Your task to perform on an android device: Search for razer kraken on ebay.com, select the first entry, add it to the cart, then select checkout. Image 0: 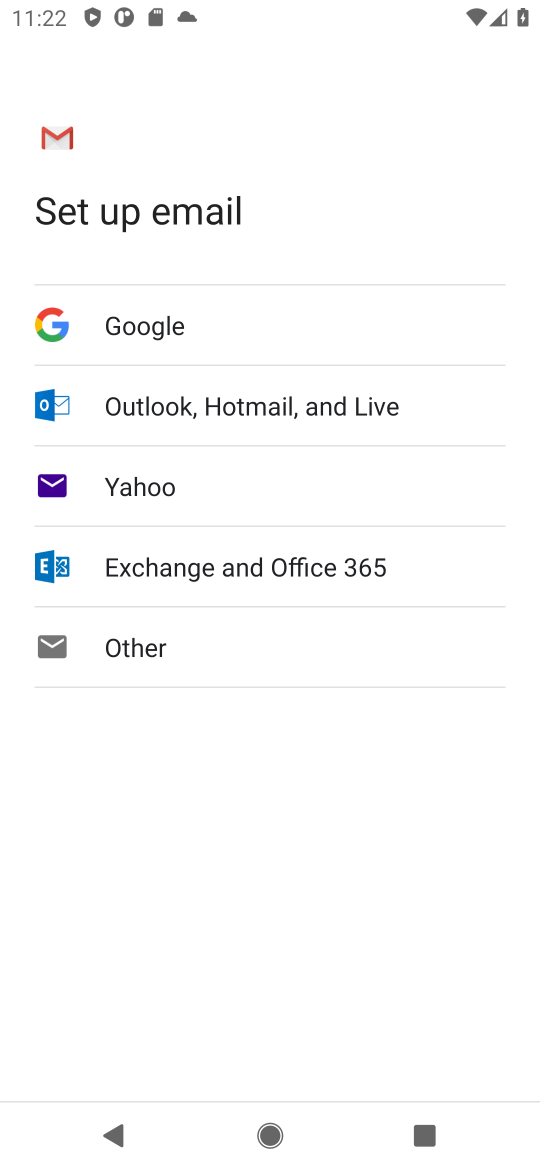
Step 0: press home button
Your task to perform on an android device: Search for razer kraken on ebay.com, select the first entry, add it to the cart, then select checkout. Image 1: 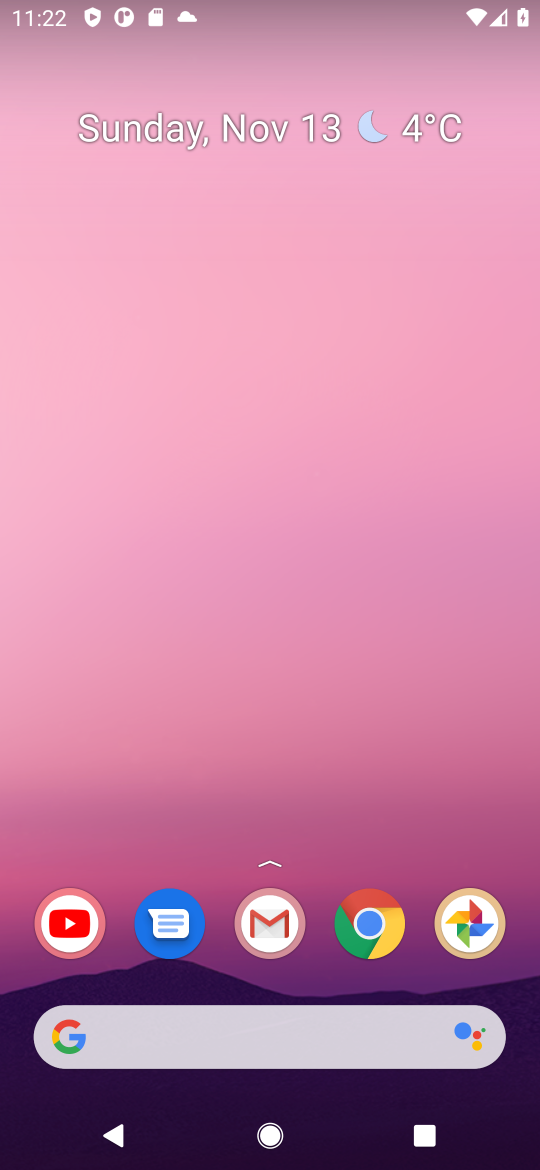
Step 1: click (365, 935)
Your task to perform on an android device: Search for razer kraken on ebay.com, select the first entry, add it to the cart, then select checkout. Image 2: 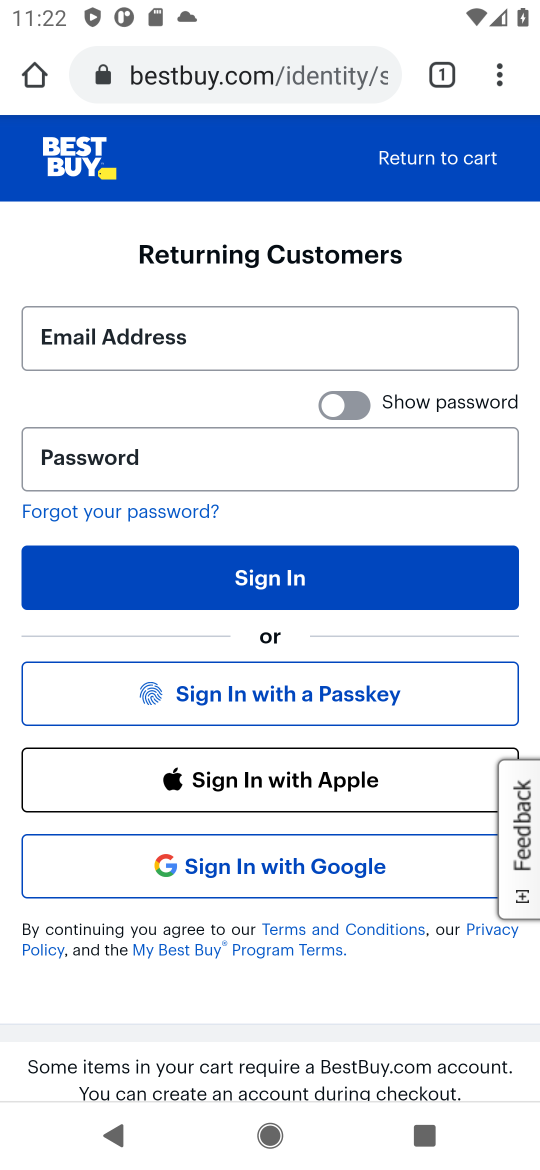
Step 2: click (317, 73)
Your task to perform on an android device: Search for razer kraken on ebay.com, select the first entry, add it to the cart, then select checkout. Image 3: 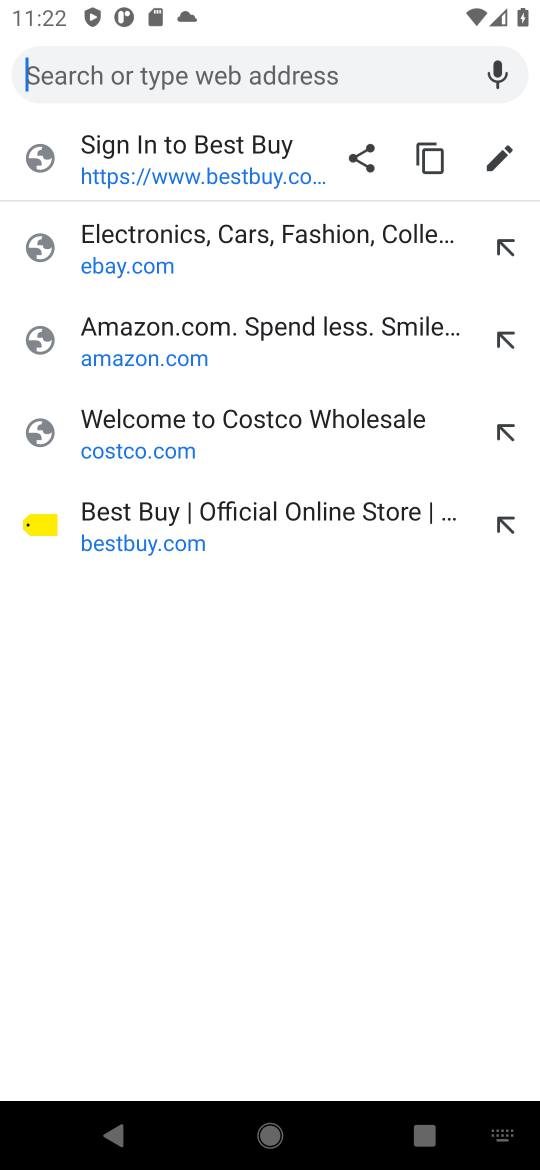
Step 3: click (305, 239)
Your task to perform on an android device: Search for razer kraken on ebay.com, select the first entry, add it to the cart, then select checkout. Image 4: 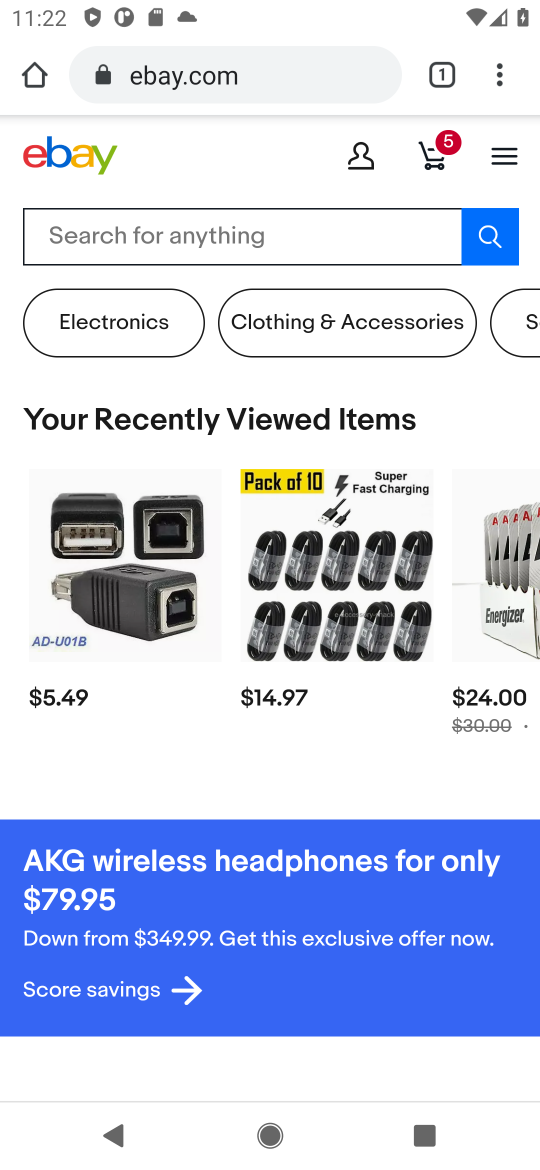
Step 4: click (346, 247)
Your task to perform on an android device: Search for razer kraken on ebay.com, select the first entry, add it to the cart, then select checkout. Image 5: 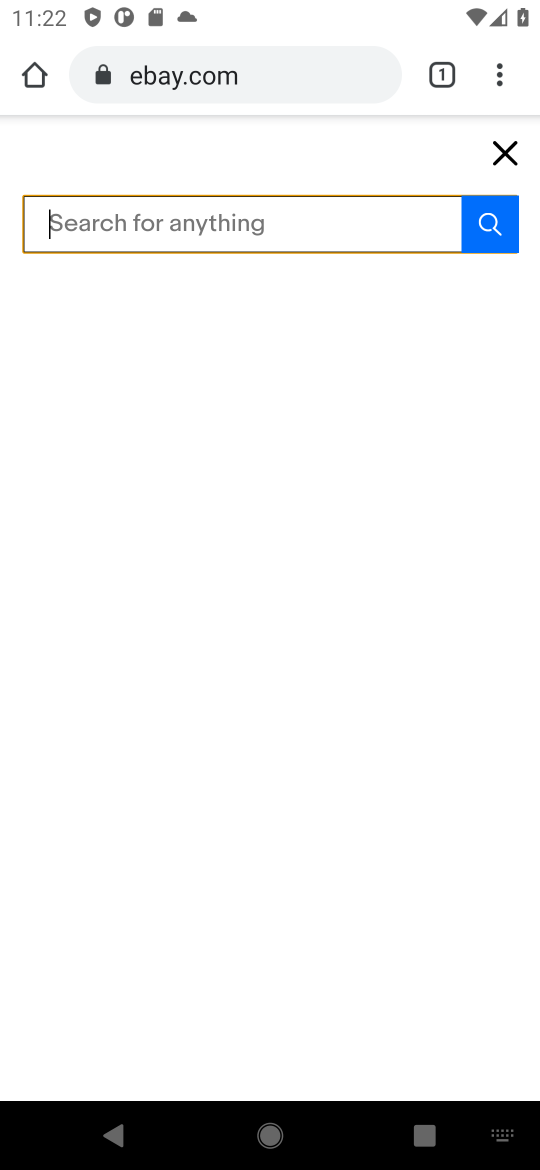
Step 5: type "razer kraken"
Your task to perform on an android device: Search for razer kraken on ebay.com, select the first entry, add it to the cart, then select checkout. Image 6: 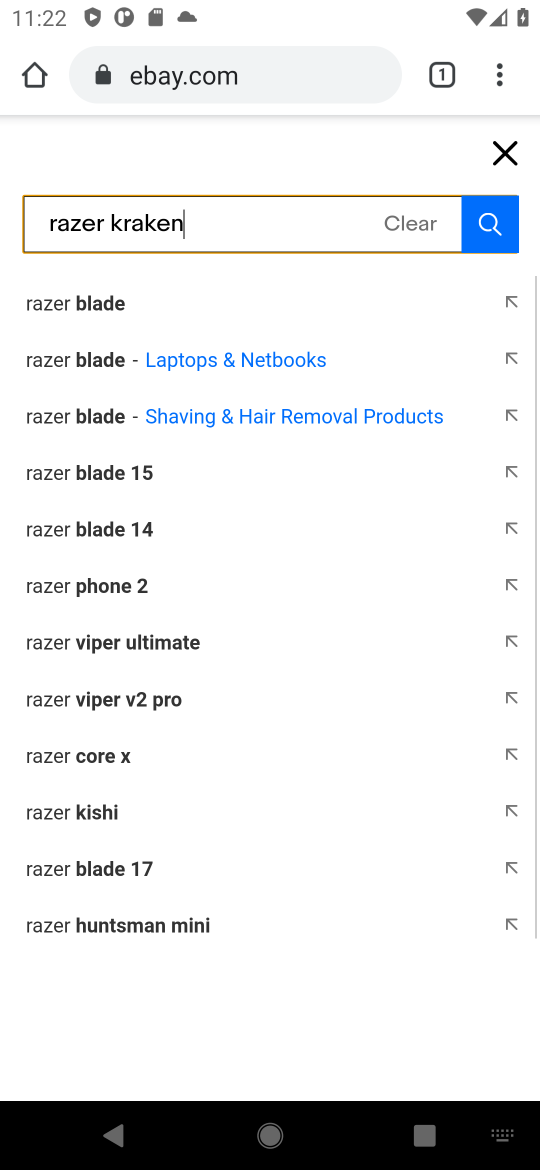
Step 6: press enter
Your task to perform on an android device: Search for razer kraken on ebay.com, select the first entry, add it to the cart, then select checkout. Image 7: 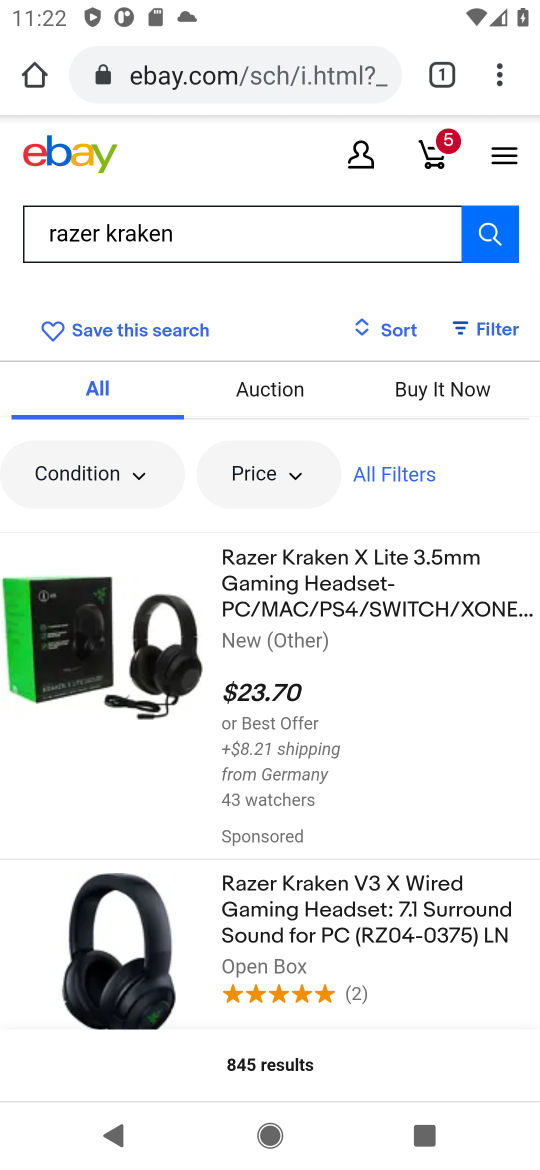
Step 7: click (328, 559)
Your task to perform on an android device: Search for razer kraken on ebay.com, select the first entry, add it to the cart, then select checkout. Image 8: 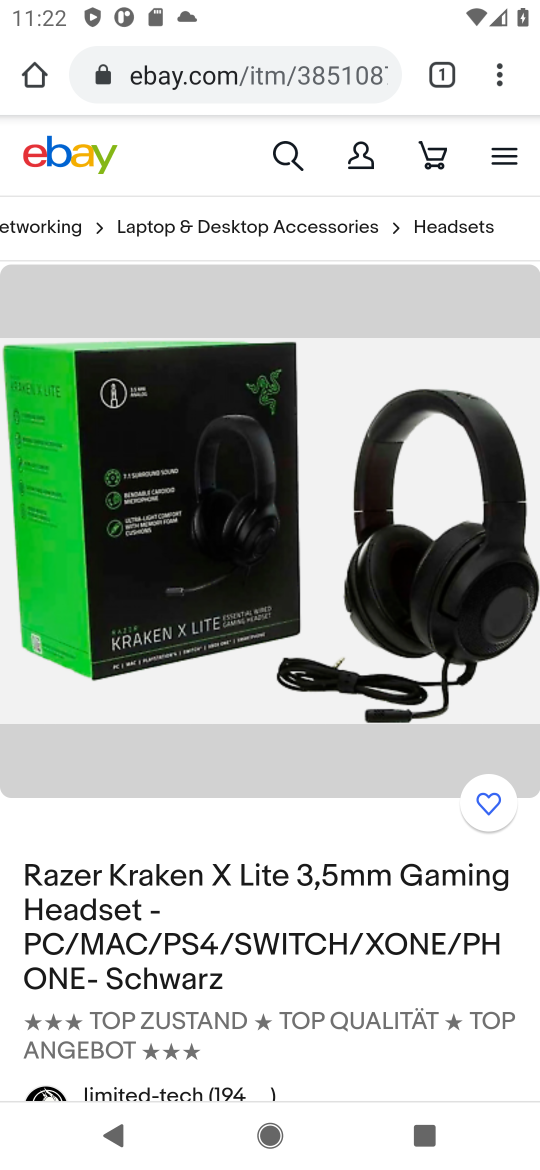
Step 8: drag from (394, 907) to (424, 360)
Your task to perform on an android device: Search for razer kraken on ebay.com, select the first entry, add it to the cart, then select checkout. Image 9: 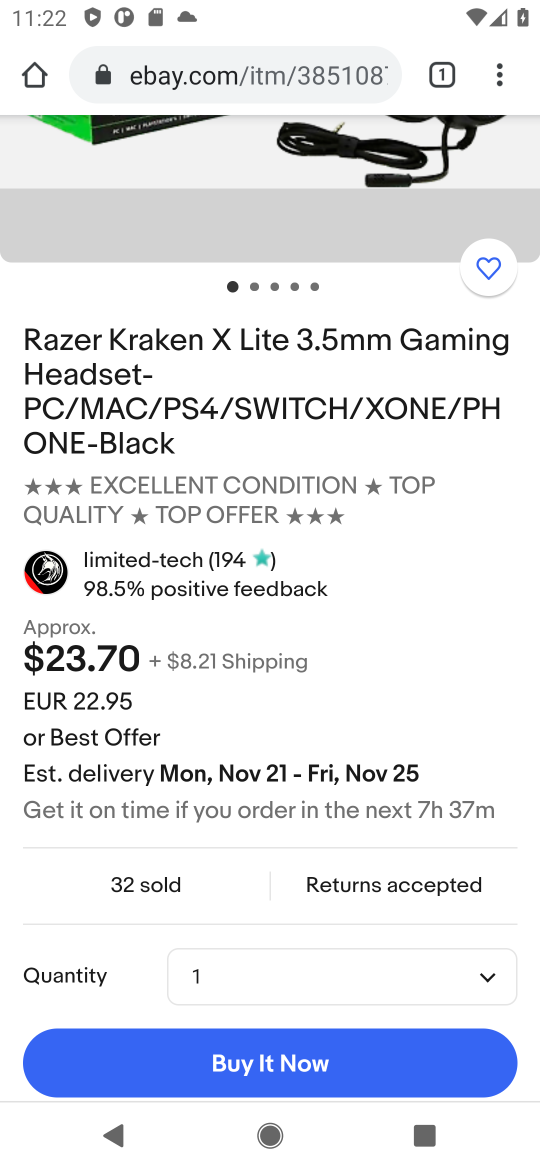
Step 9: drag from (408, 933) to (425, 446)
Your task to perform on an android device: Search for razer kraken on ebay.com, select the first entry, add it to the cart, then select checkout. Image 10: 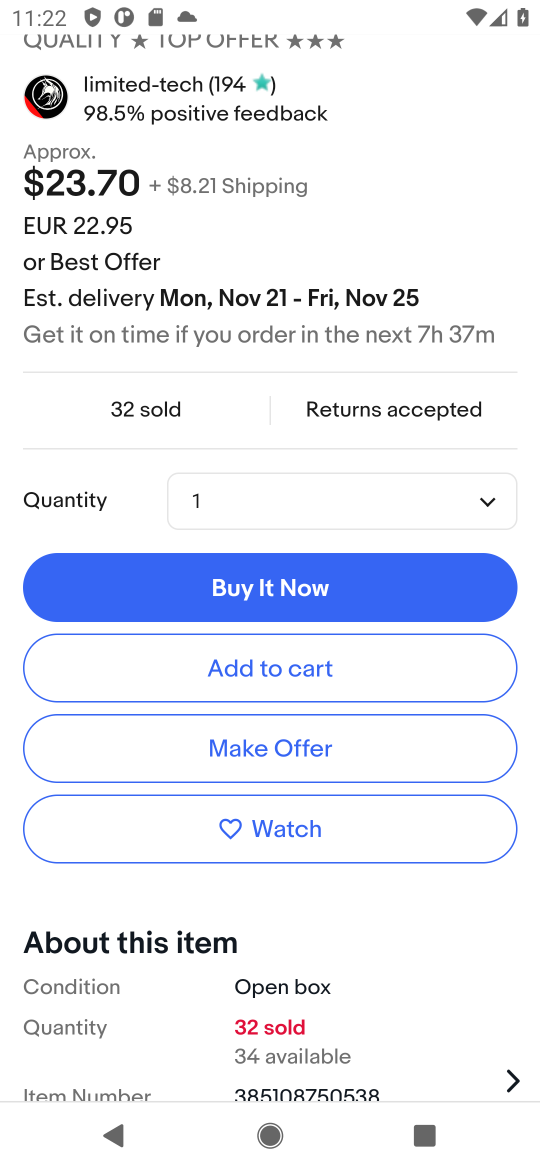
Step 10: click (289, 678)
Your task to perform on an android device: Search for razer kraken on ebay.com, select the first entry, add it to the cart, then select checkout. Image 11: 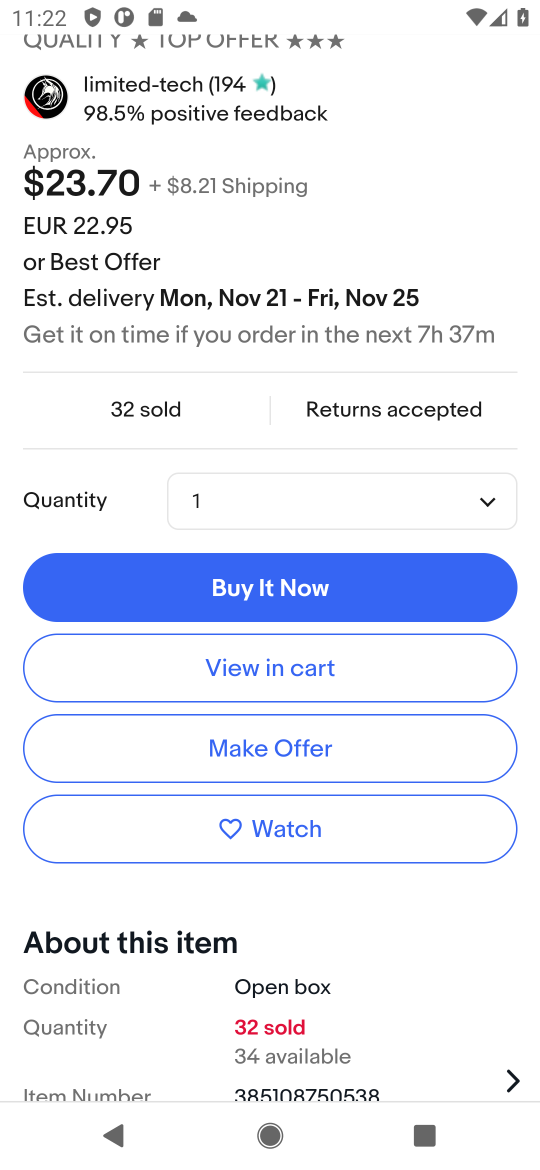
Step 11: click (298, 664)
Your task to perform on an android device: Search for razer kraken on ebay.com, select the first entry, add it to the cart, then select checkout. Image 12: 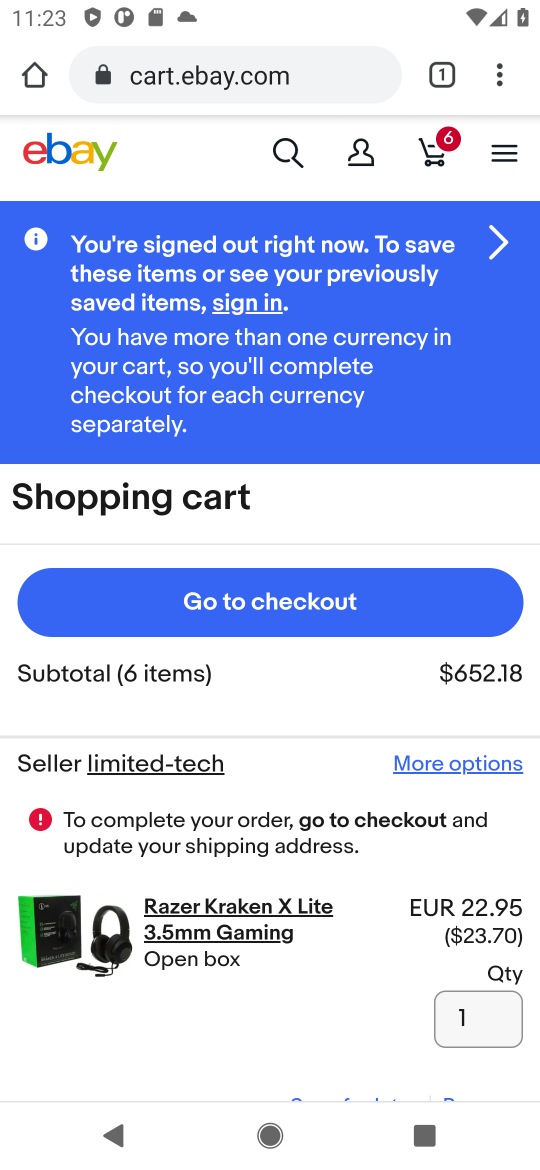
Step 12: click (324, 609)
Your task to perform on an android device: Search for razer kraken on ebay.com, select the first entry, add it to the cart, then select checkout. Image 13: 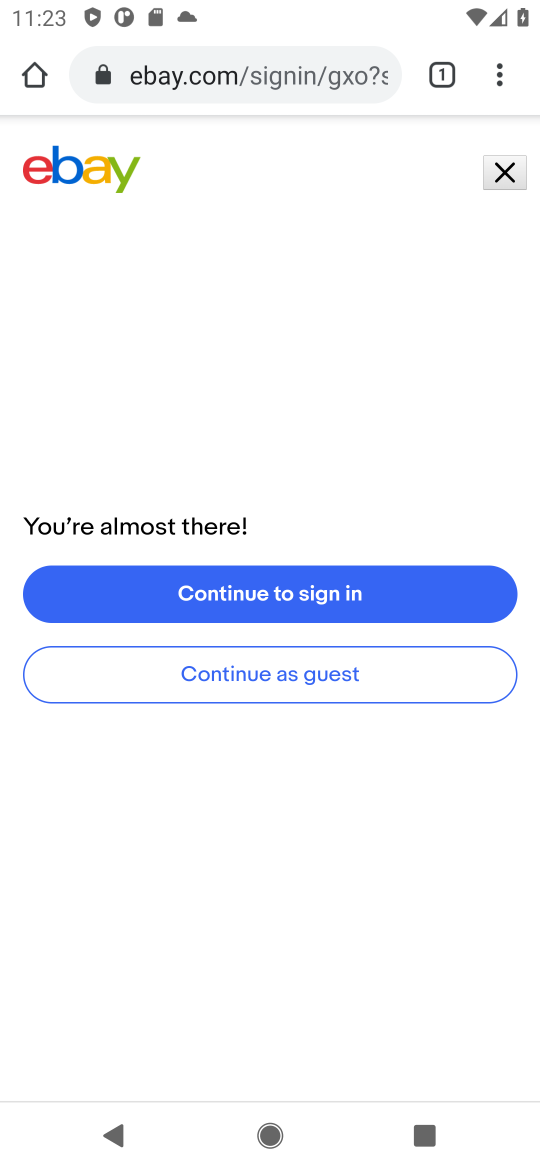
Step 13: task complete